Your task to perform on an android device: open chrome privacy settings Image 0: 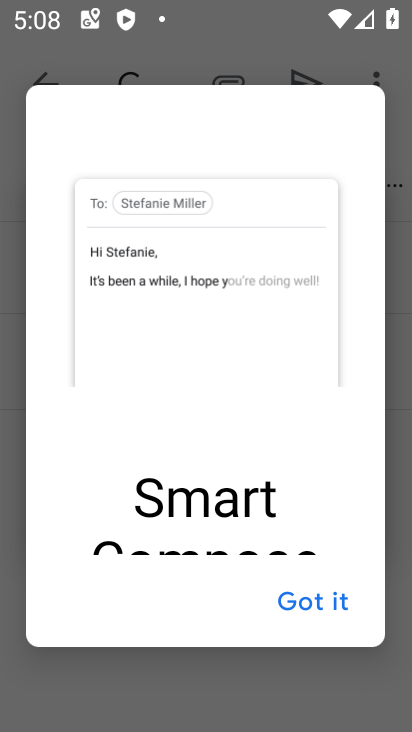
Step 0: press home button
Your task to perform on an android device: open chrome privacy settings Image 1: 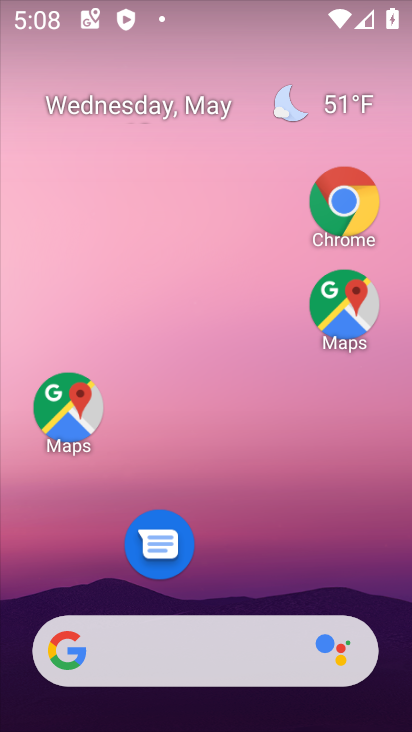
Step 1: drag from (261, 540) to (271, 249)
Your task to perform on an android device: open chrome privacy settings Image 2: 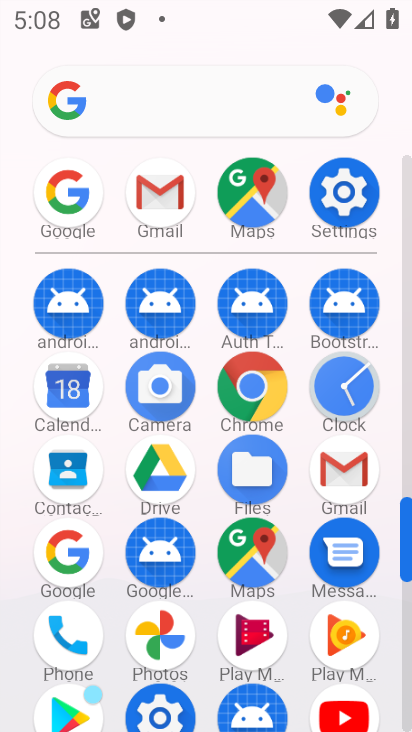
Step 2: click (242, 420)
Your task to perform on an android device: open chrome privacy settings Image 3: 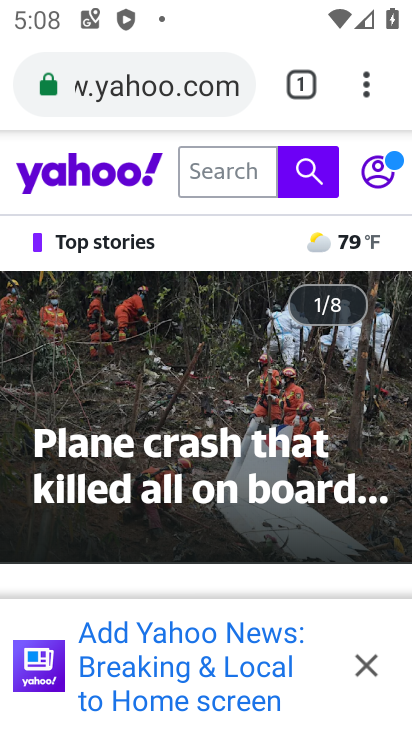
Step 3: click (366, 91)
Your task to perform on an android device: open chrome privacy settings Image 4: 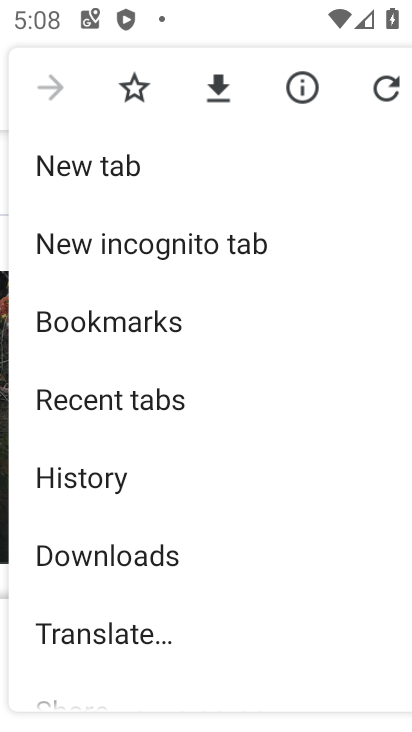
Step 4: drag from (118, 562) to (141, 213)
Your task to perform on an android device: open chrome privacy settings Image 5: 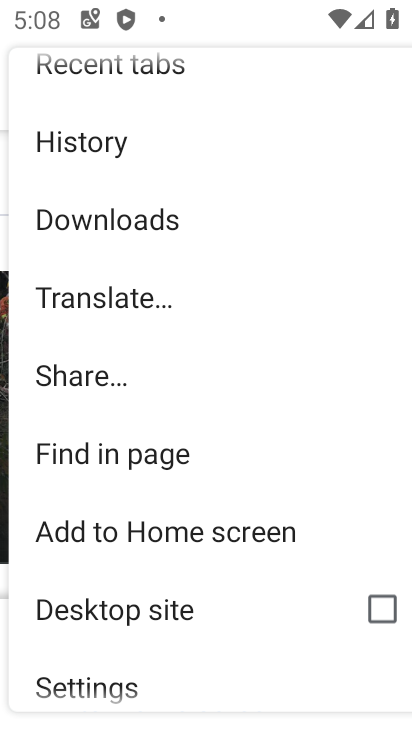
Step 5: drag from (191, 588) to (216, 282)
Your task to perform on an android device: open chrome privacy settings Image 6: 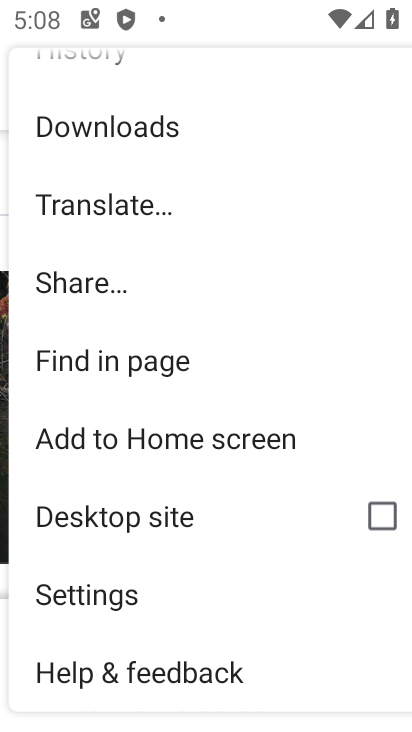
Step 6: click (99, 601)
Your task to perform on an android device: open chrome privacy settings Image 7: 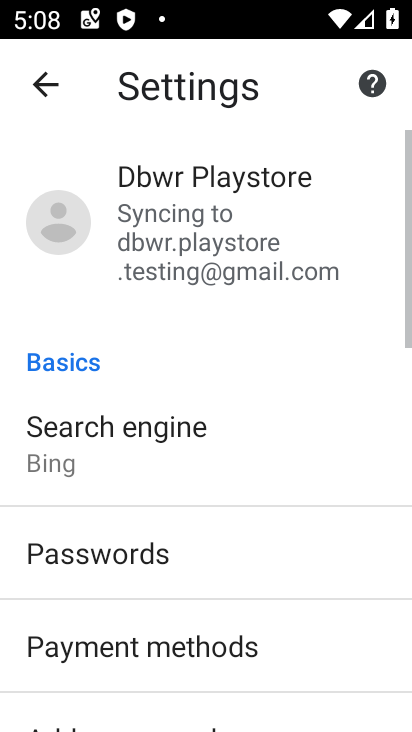
Step 7: drag from (93, 618) to (116, 245)
Your task to perform on an android device: open chrome privacy settings Image 8: 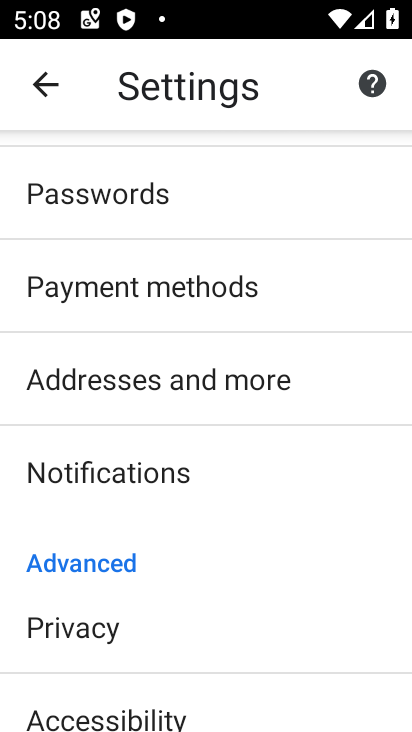
Step 8: click (97, 633)
Your task to perform on an android device: open chrome privacy settings Image 9: 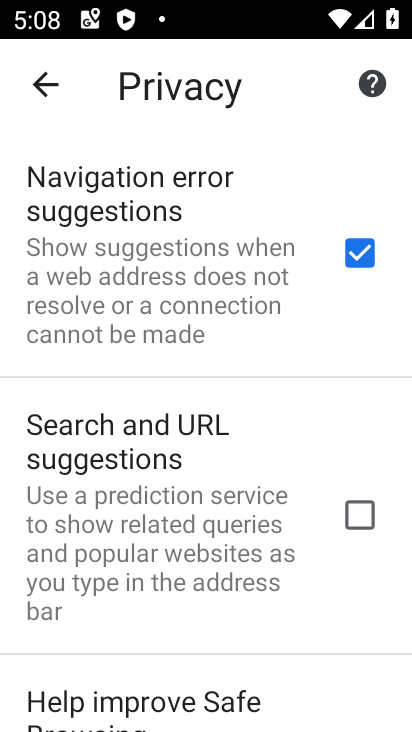
Step 9: task complete